Your task to perform on an android device: turn on notifications settings in the gmail app Image 0: 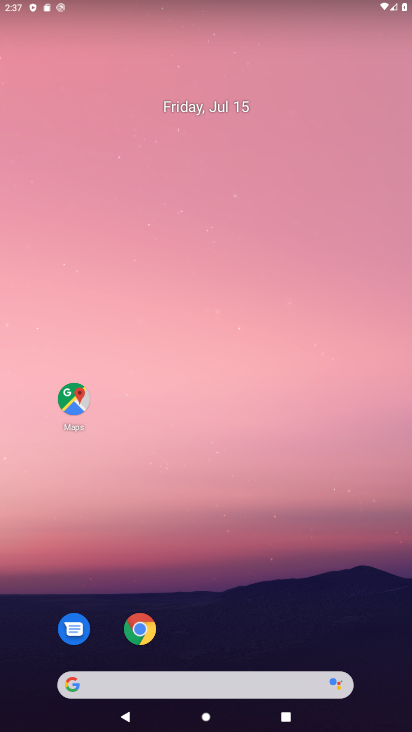
Step 0: drag from (201, 655) to (319, 82)
Your task to perform on an android device: turn on notifications settings in the gmail app Image 1: 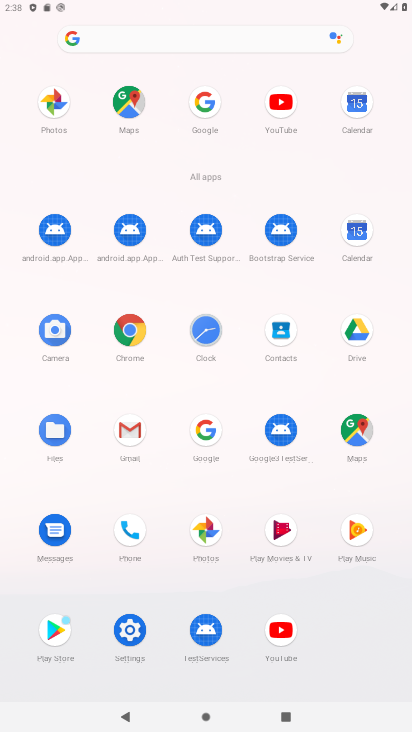
Step 1: click (138, 438)
Your task to perform on an android device: turn on notifications settings in the gmail app Image 2: 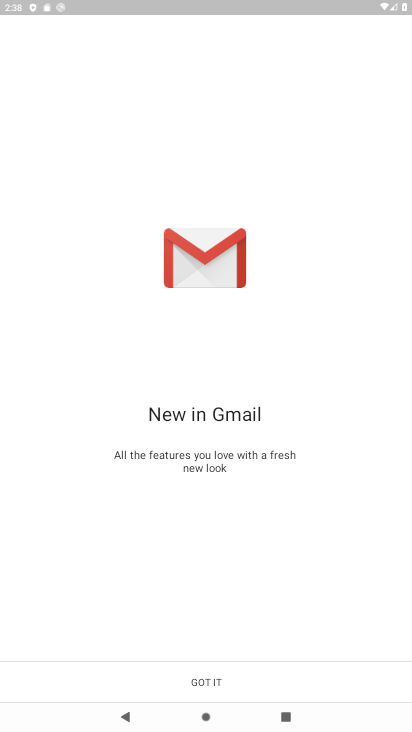
Step 2: click (205, 688)
Your task to perform on an android device: turn on notifications settings in the gmail app Image 3: 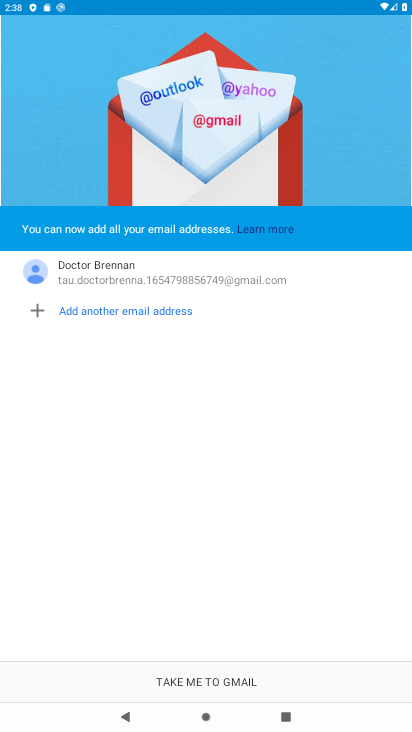
Step 3: click (256, 677)
Your task to perform on an android device: turn on notifications settings in the gmail app Image 4: 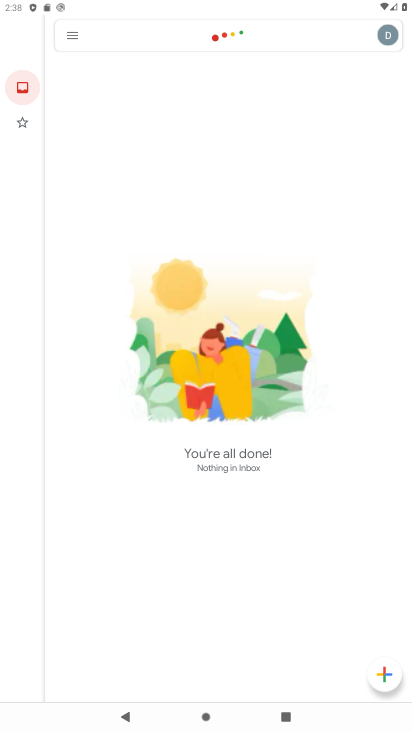
Step 4: click (70, 32)
Your task to perform on an android device: turn on notifications settings in the gmail app Image 5: 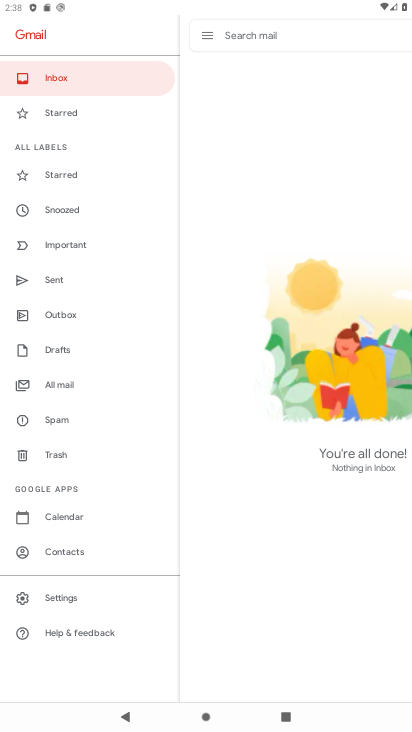
Step 5: click (92, 590)
Your task to perform on an android device: turn on notifications settings in the gmail app Image 6: 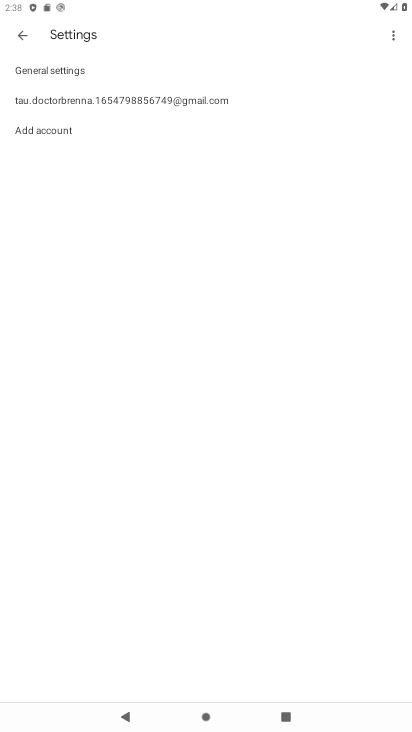
Step 6: click (30, 60)
Your task to perform on an android device: turn on notifications settings in the gmail app Image 7: 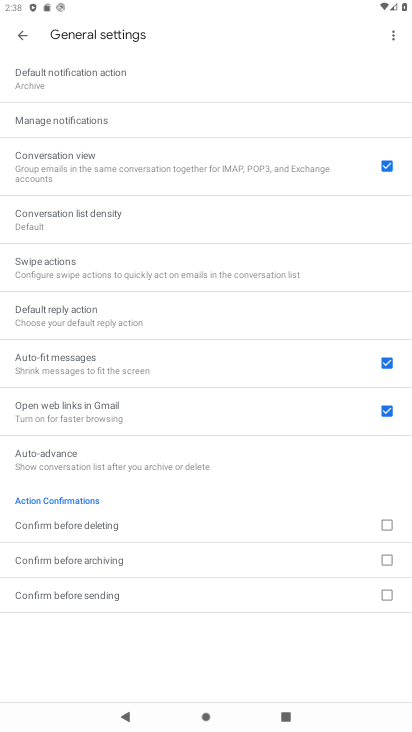
Step 7: click (82, 129)
Your task to perform on an android device: turn on notifications settings in the gmail app Image 8: 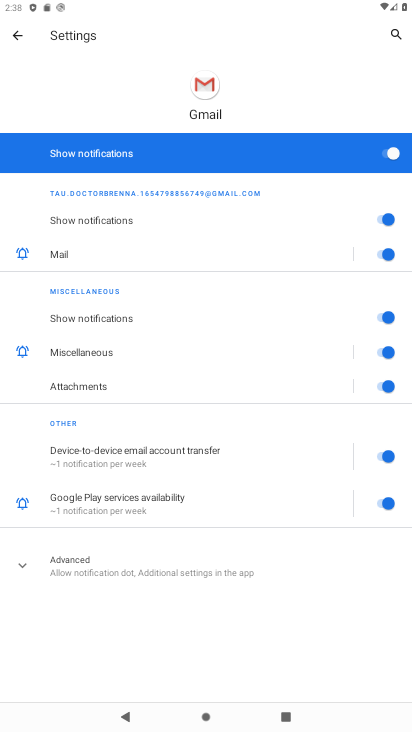
Step 8: task complete